Your task to perform on an android device: stop showing notifications on the lock screen Image 0: 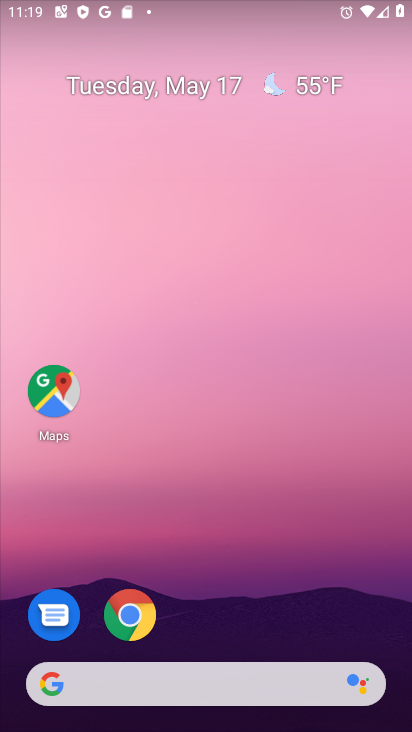
Step 0: drag from (285, 575) to (224, 165)
Your task to perform on an android device: stop showing notifications on the lock screen Image 1: 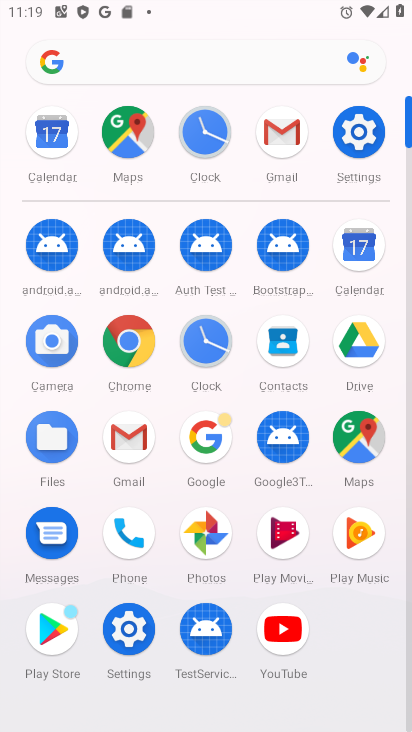
Step 1: click (348, 132)
Your task to perform on an android device: stop showing notifications on the lock screen Image 2: 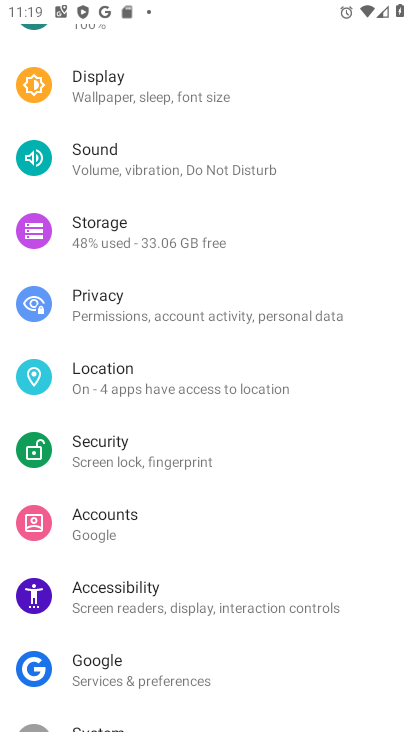
Step 2: drag from (290, 160) to (270, 373)
Your task to perform on an android device: stop showing notifications on the lock screen Image 3: 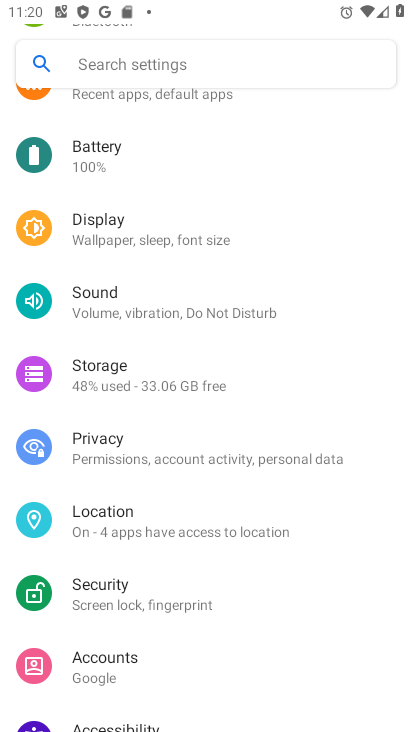
Step 3: drag from (167, 151) to (210, 640)
Your task to perform on an android device: stop showing notifications on the lock screen Image 4: 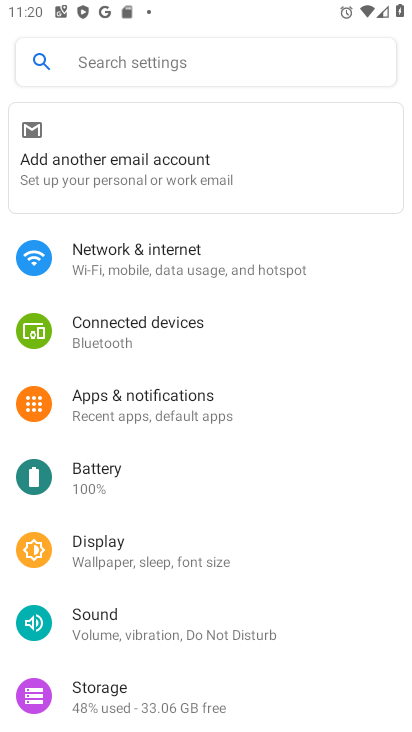
Step 4: click (134, 403)
Your task to perform on an android device: stop showing notifications on the lock screen Image 5: 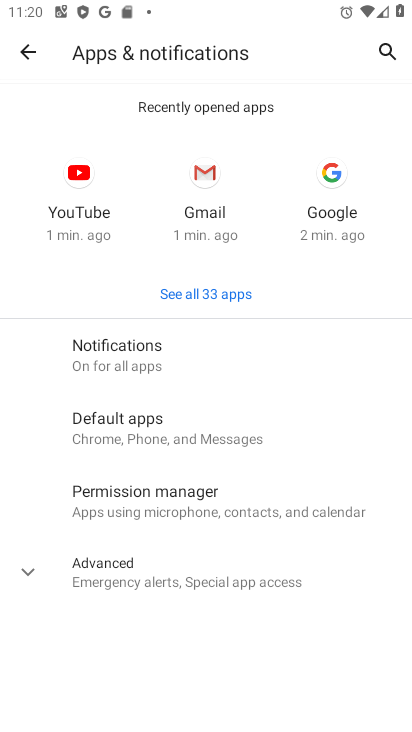
Step 5: click (137, 346)
Your task to perform on an android device: stop showing notifications on the lock screen Image 6: 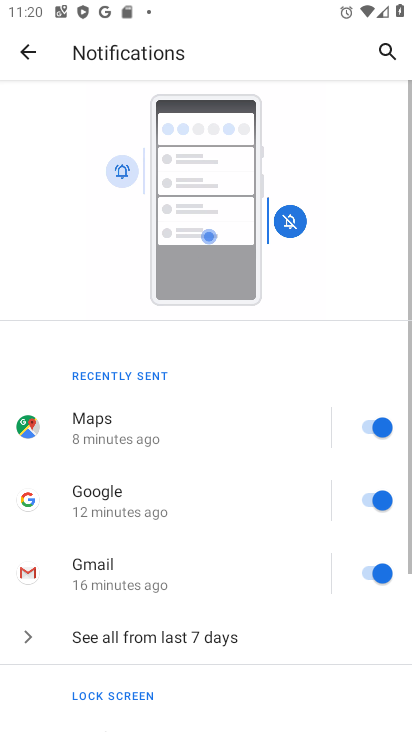
Step 6: drag from (208, 555) to (296, 51)
Your task to perform on an android device: stop showing notifications on the lock screen Image 7: 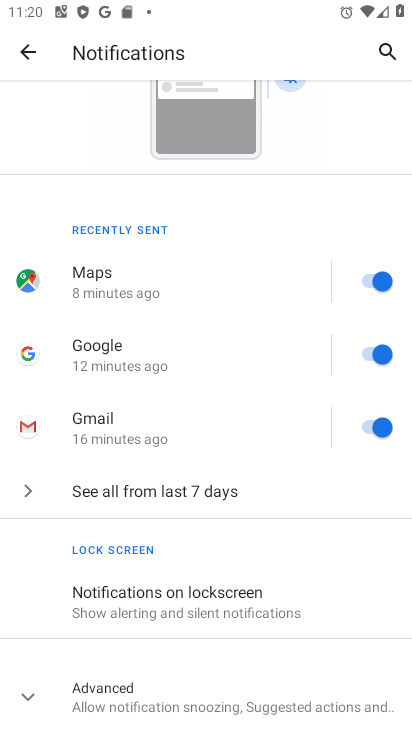
Step 7: click (209, 592)
Your task to perform on an android device: stop showing notifications on the lock screen Image 8: 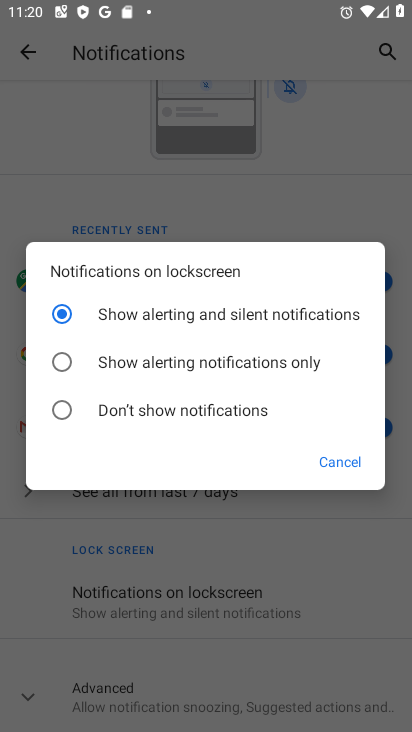
Step 8: click (213, 406)
Your task to perform on an android device: stop showing notifications on the lock screen Image 9: 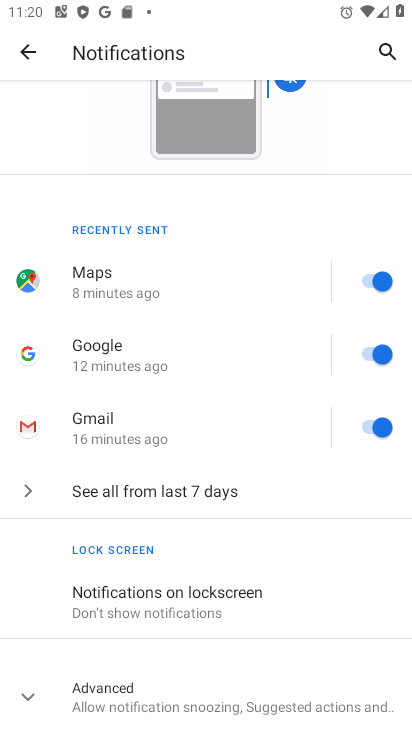
Step 9: task complete